Your task to perform on an android device: Open Chrome and go to settings Image 0: 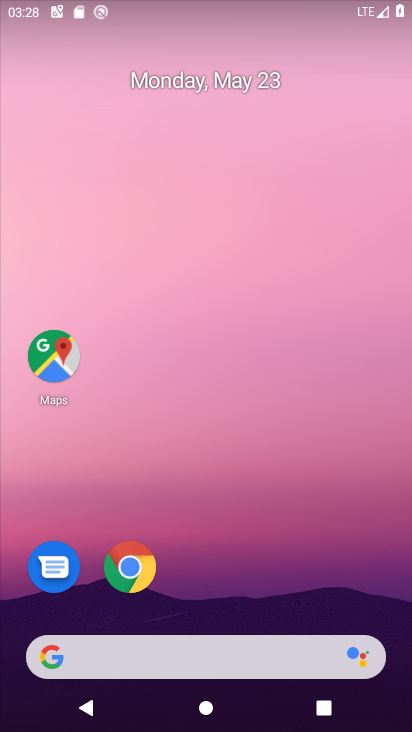
Step 0: click (132, 578)
Your task to perform on an android device: Open Chrome and go to settings Image 1: 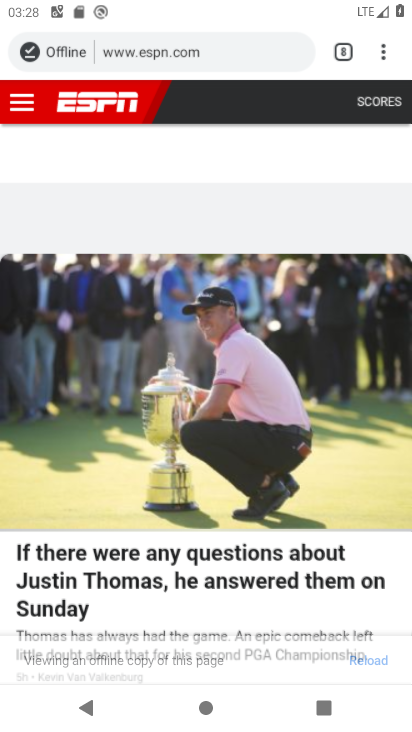
Step 1: click (152, 617)
Your task to perform on an android device: Open Chrome and go to settings Image 2: 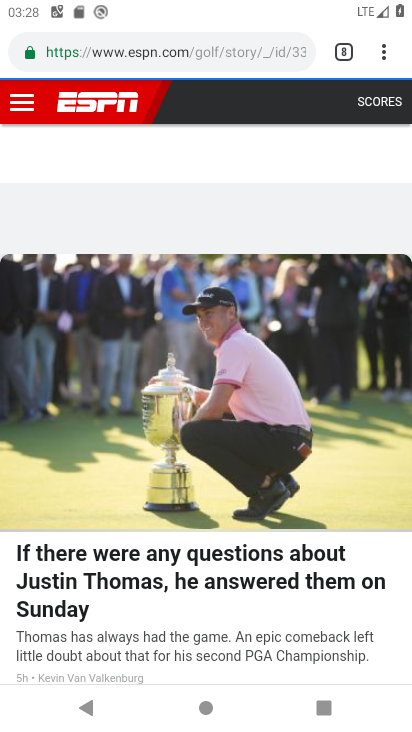
Step 2: click (184, 679)
Your task to perform on an android device: Open Chrome and go to settings Image 3: 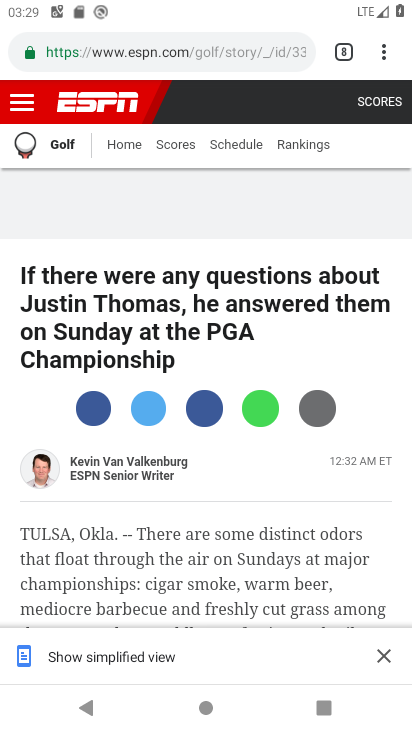
Step 3: click (384, 53)
Your task to perform on an android device: Open Chrome and go to settings Image 4: 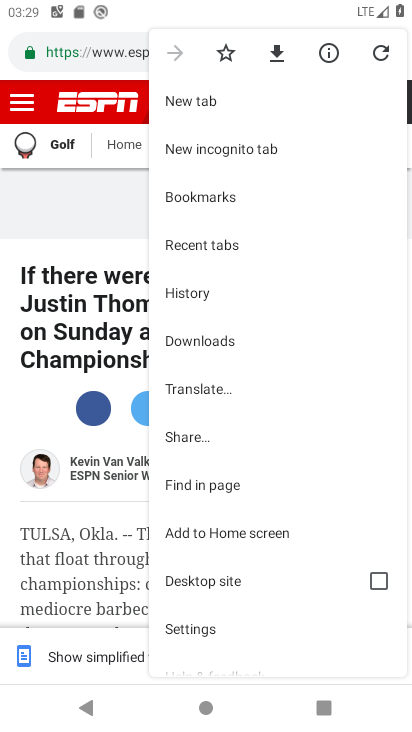
Step 4: click (186, 642)
Your task to perform on an android device: Open Chrome and go to settings Image 5: 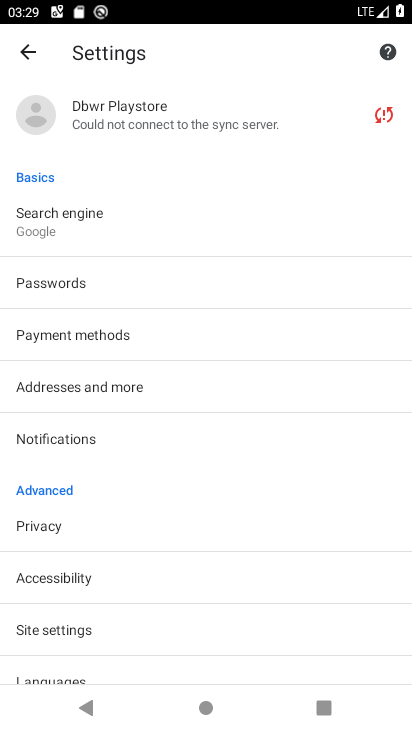
Step 5: task complete